Your task to perform on an android device: Open Reddit.com Image 0: 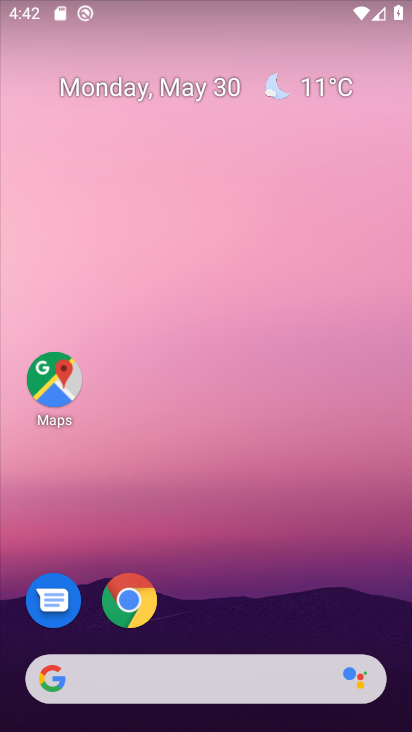
Step 0: drag from (322, 585) to (327, 53)
Your task to perform on an android device: Open Reddit.com Image 1: 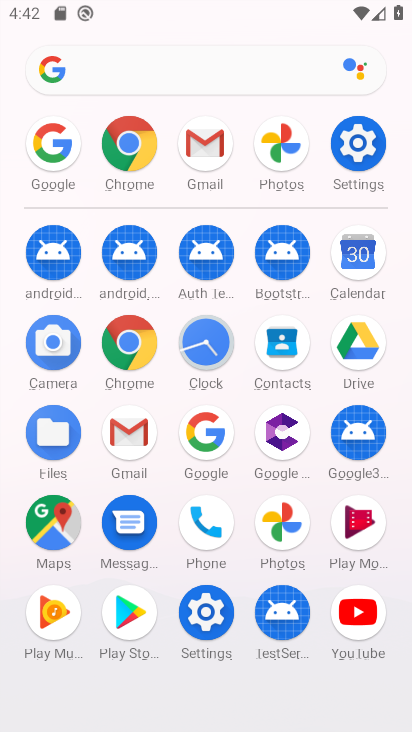
Step 1: click (136, 146)
Your task to perform on an android device: Open Reddit.com Image 2: 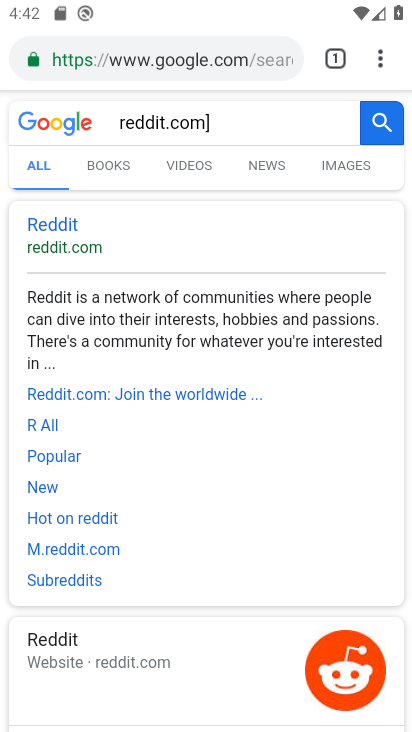
Step 2: click (57, 247)
Your task to perform on an android device: Open Reddit.com Image 3: 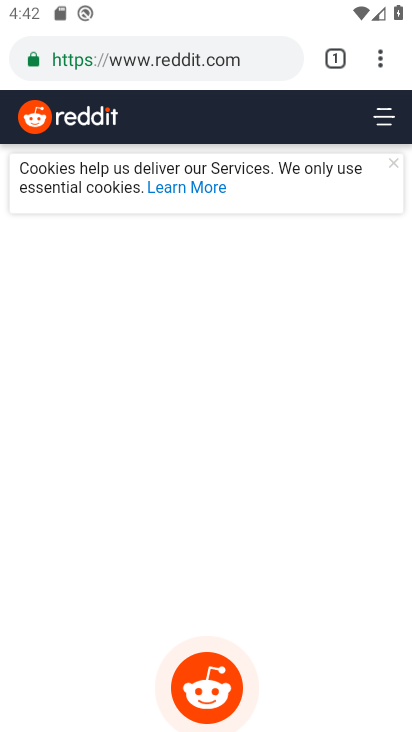
Step 3: task complete